Your task to perform on an android device: Open Youtube and go to the subscriptions tab Image 0: 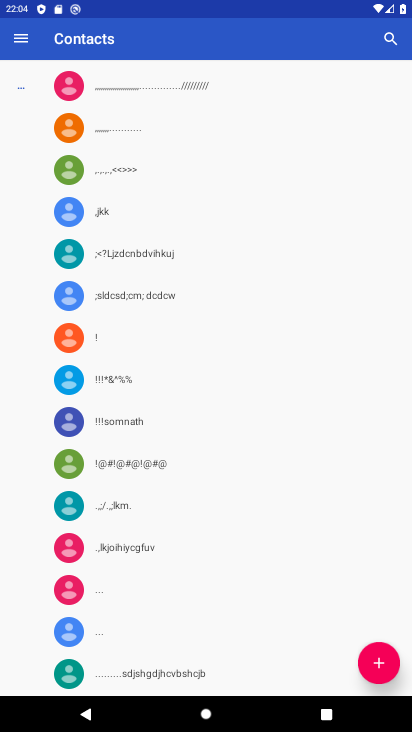
Step 0: press home button
Your task to perform on an android device: Open Youtube and go to the subscriptions tab Image 1: 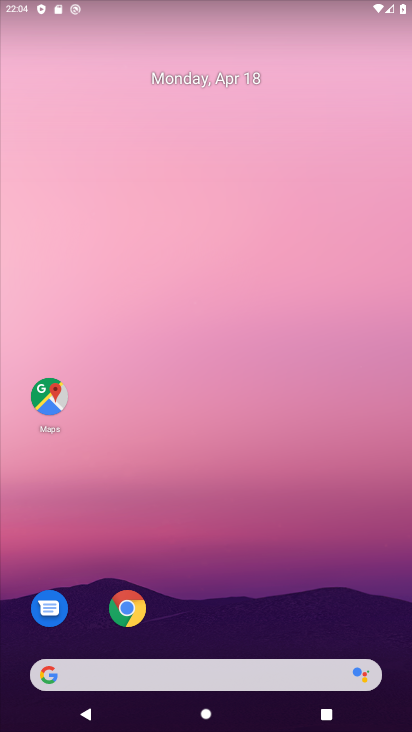
Step 1: drag from (265, 591) to (296, 150)
Your task to perform on an android device: Open Youtube and go to the subscriptions tab Image 2: 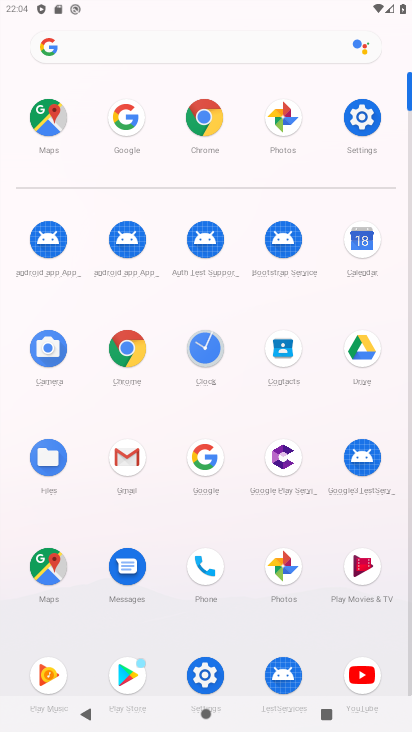
Step 2: click (360, 674)
Your task to perform on an android device: Open Youtube and go to the subscriptions tab Image 3: 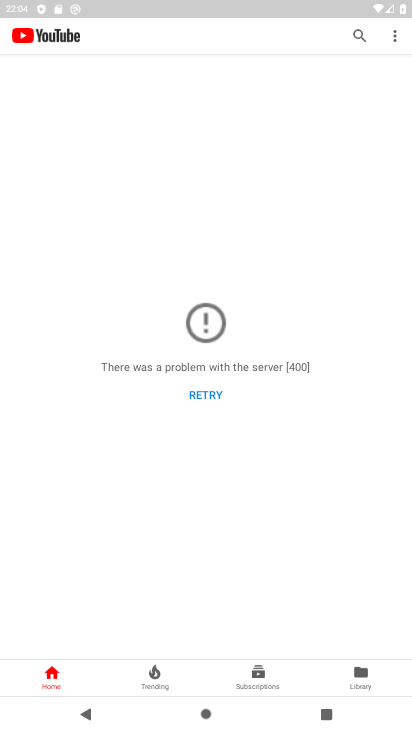
Step 3: click (254, 681)
Your task to perform on an android device: Open Youtube and go to the subscriptions tab Image 4: 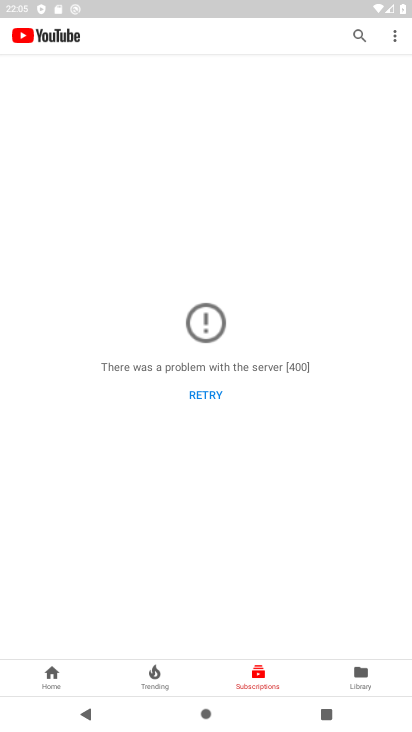
Step 4: task complete